Your task to perform on an android device: open wifi settings Image 0: 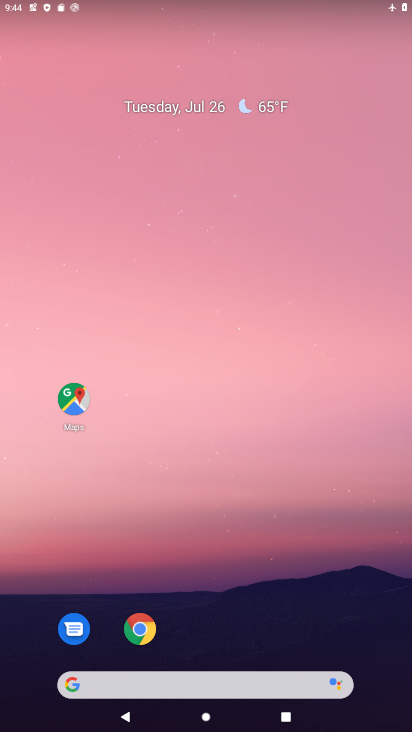
Step 0: drag from (275, 603) to (268, 82)
Your task to perform on an android device: open wifi settings Image 1: 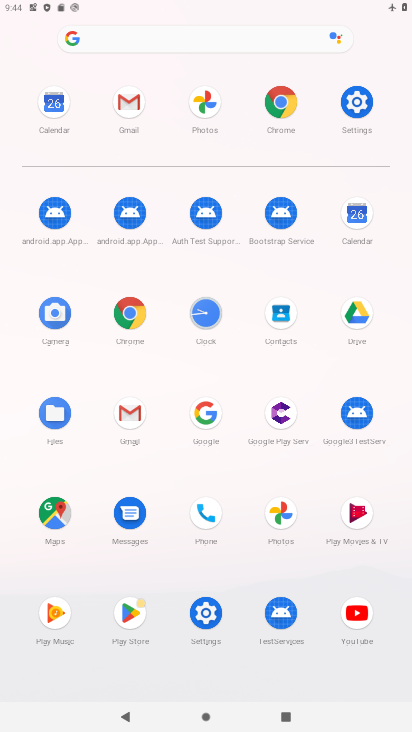
Step 1: click (348, 100)
Your task to perform on an android device: open wifi settings Image 2: 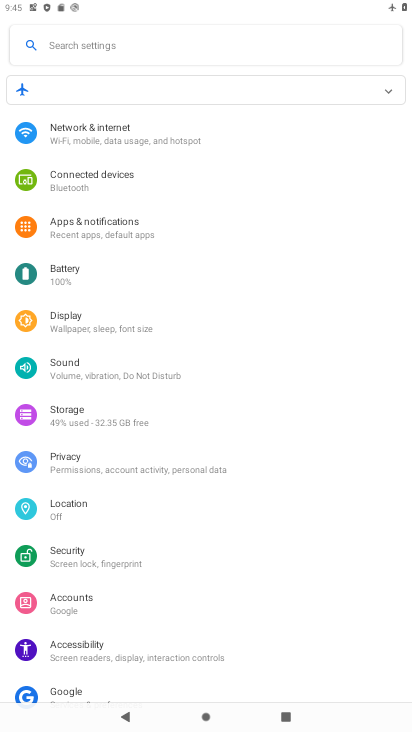
Step 2: click (140, 140)
Your task to perform on an android device: open wifi settings Image 3: 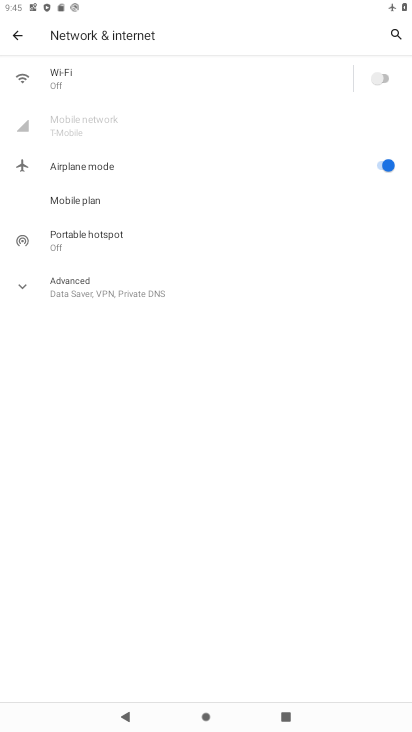
Step 3: click (307, 77)
Your task to perform on an android device: open wifi settings Image 4: 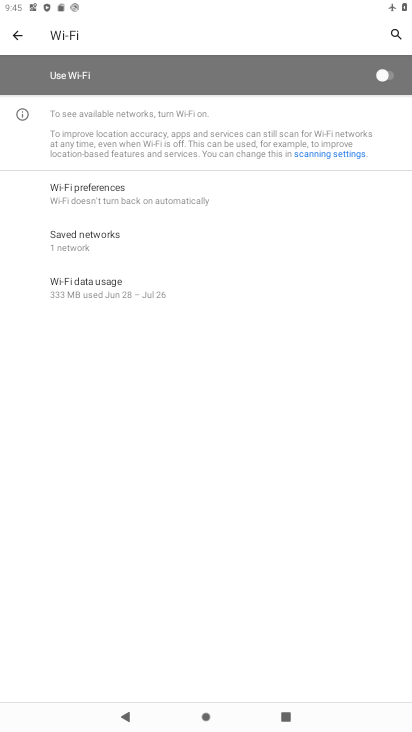
Step 4: click (382, 79)
Your task to perform on an android device: open wifi settings Image 5: 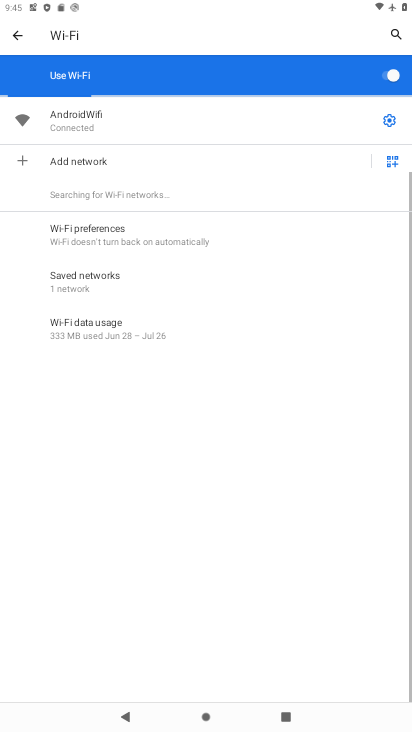
Step 5: click (395, 128)
Your task to perform on an android device: open wifi settings Image 6: 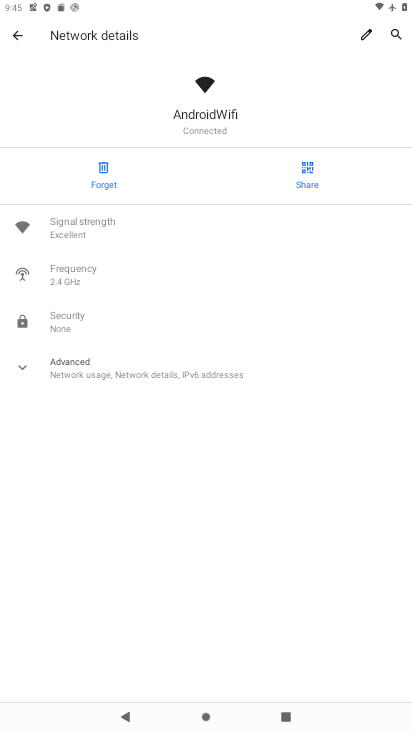
Step 6: task complete